Your task to perform on an android device: change the clock display to show seconds Image 0: 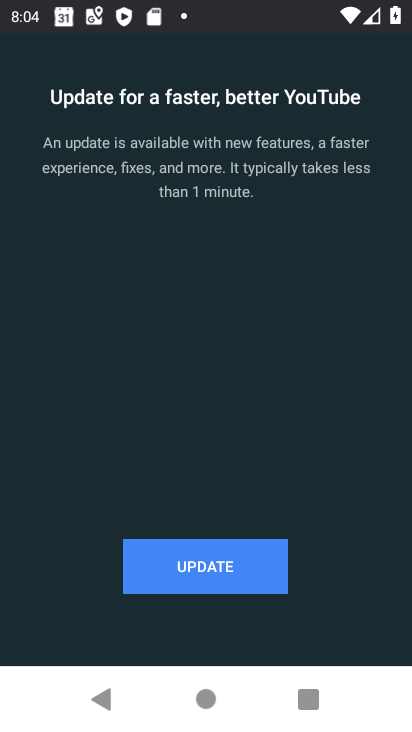
Step 0: press home button
Your task to perform on an android device: change the clock display to show seconds Image 1: 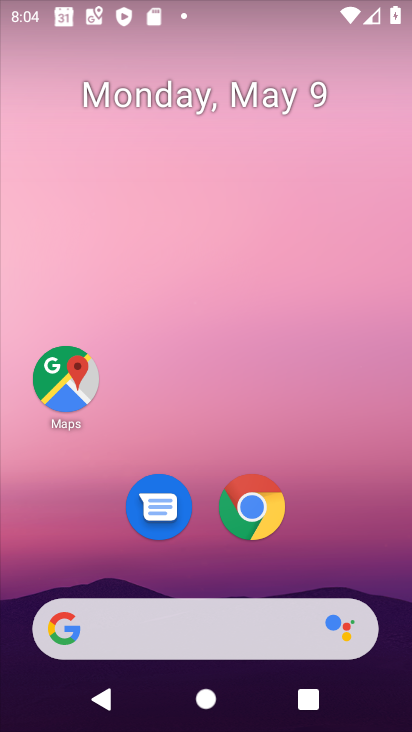
Step 1: drag from (289, 656) to (311, 228)
Your task to perform on an android device: change the clock display to show seconds Image 2: 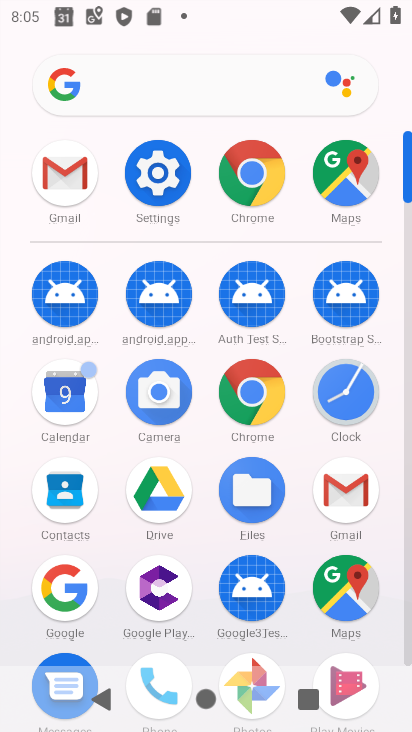
Step 2: click (342, 393)
Your task to perform on an android device: change the clock display to show seconds Image 3: 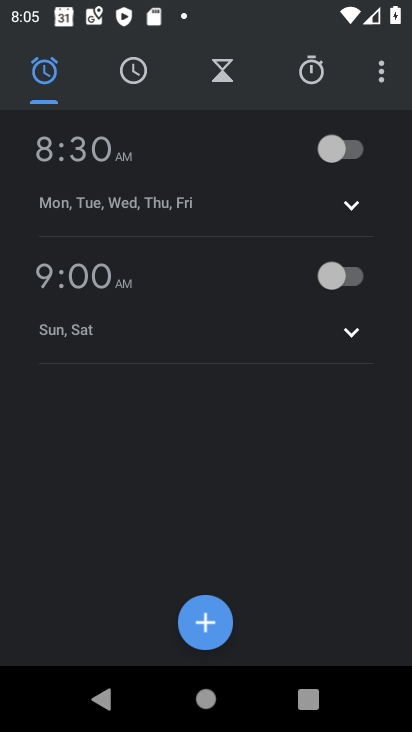
Step 3: click (383, 78)
Your task to perform on an android device: change the clock display to show seconds Image 4: 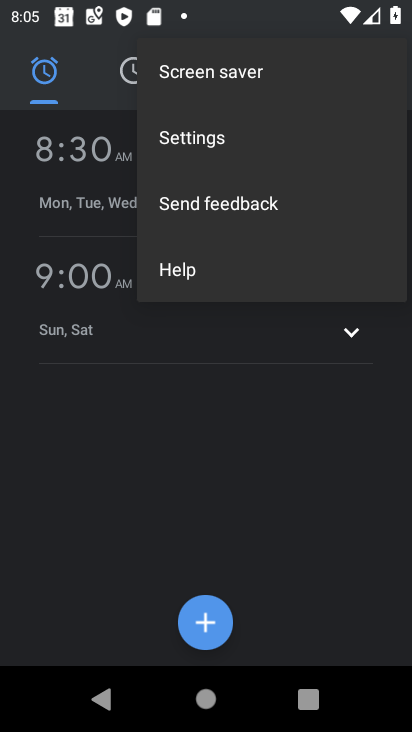
Step 4: click (241, 131)
Your task to perform on an android device: change the clock display to show seconds Image 5: 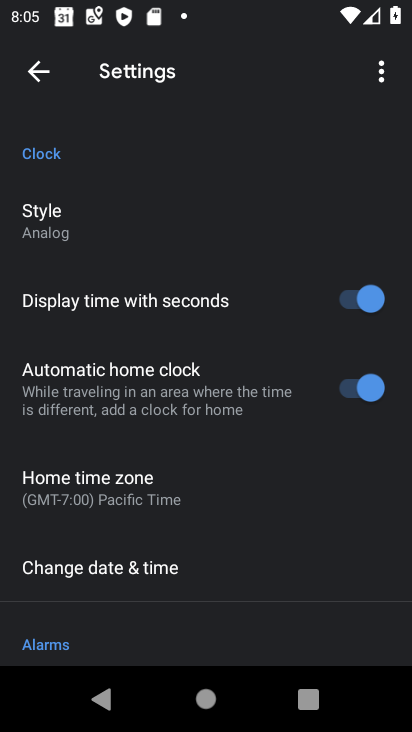
Step 5: click (339, 312)
Your task to perform on an android device: change the clock display to show seconds Image 6: 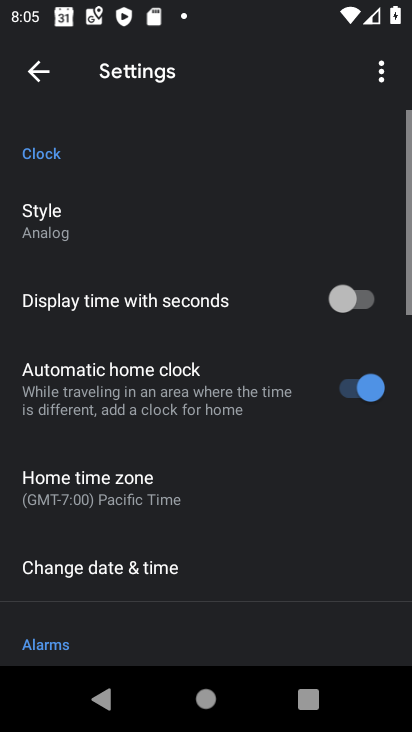
Step 6: task complete